Your task to perform on an android device: Open settings on Google Maps Image 0: 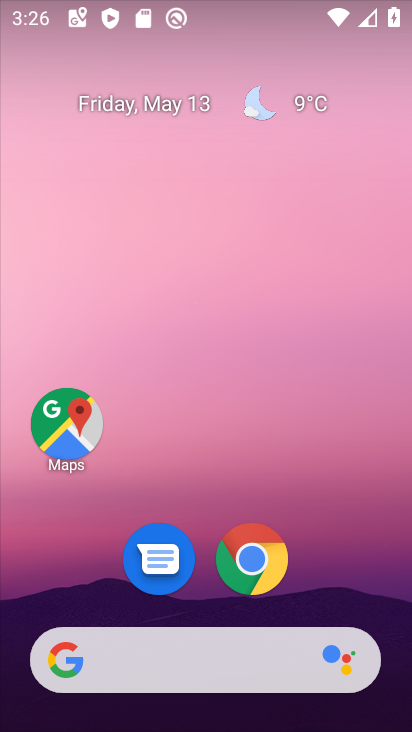
Step 0: click (68, 421)
Your task to perform on an android device: Open settings on Google Maps Image 1: 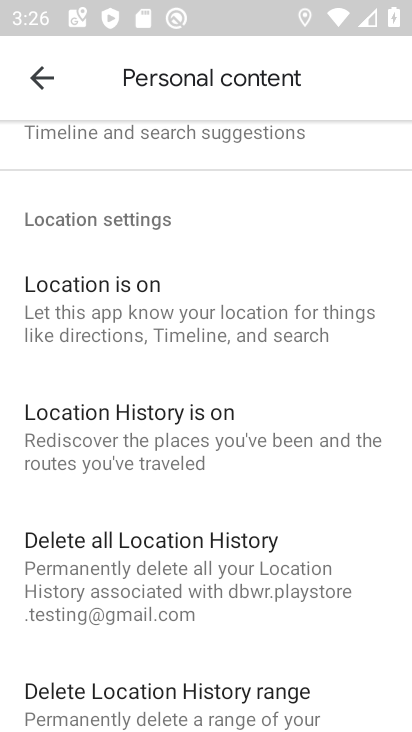
Step 1: task complete